Your task to perform on an android device: change your default location settings in chrome Image 0: 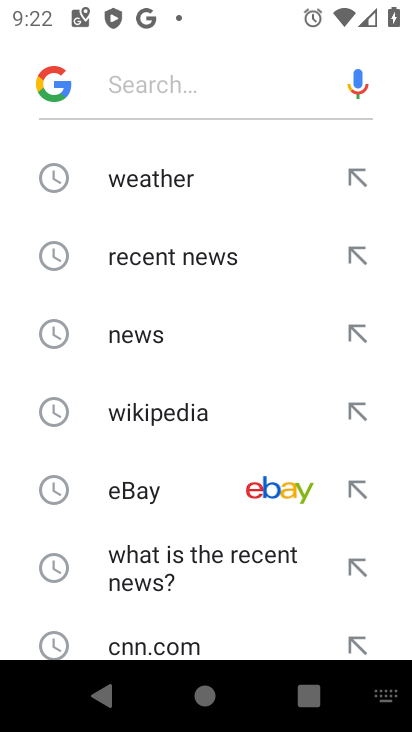
Step 0: press home button
Your task to perform on an android device: change your default location settings in chrome Image 1: 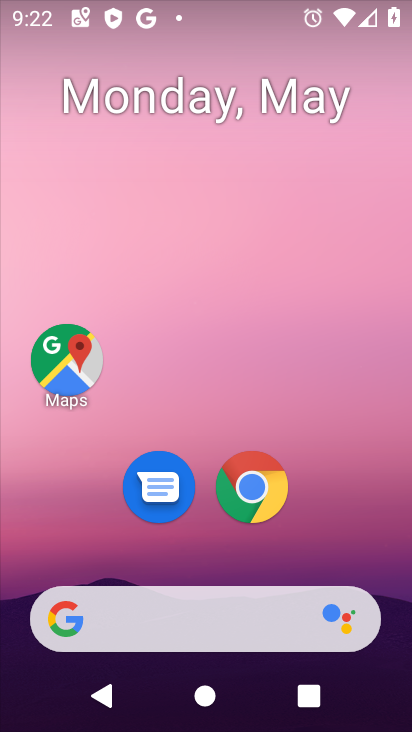
Step 1: click (250, 472)
Your task to perform on an android device: change your default location settings in chrome Image 2: 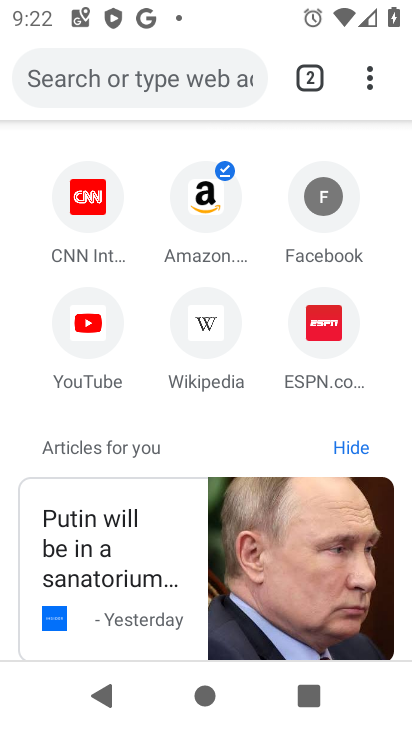
Step 2: click (360, 67)
Your task to perform on an android device: change your default location settings in chrome Image 3: 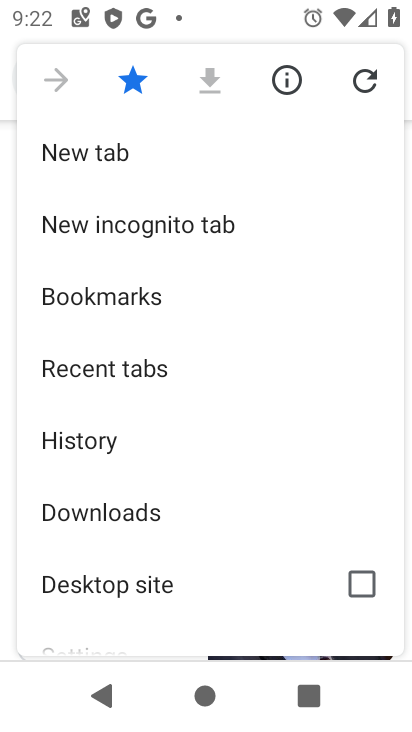
Step 3: drag from (128, 566) to (152, 186)
Your task to perform on an android device: change your default location settings in chrome Image 4: 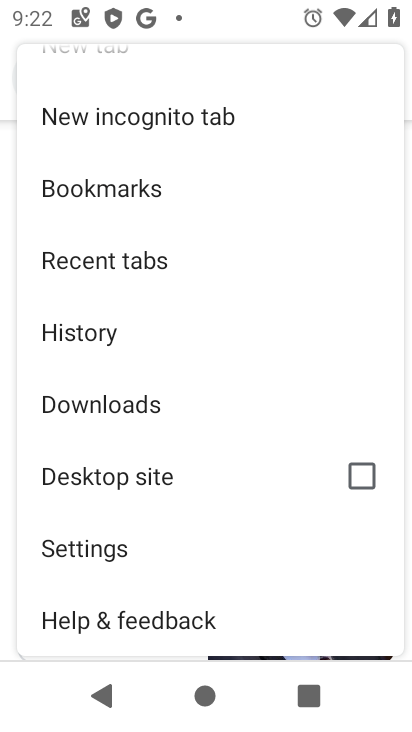
Step 4: click (126, 558)
Your task to perform on an android device: change your default location settings in chrome Image 5: 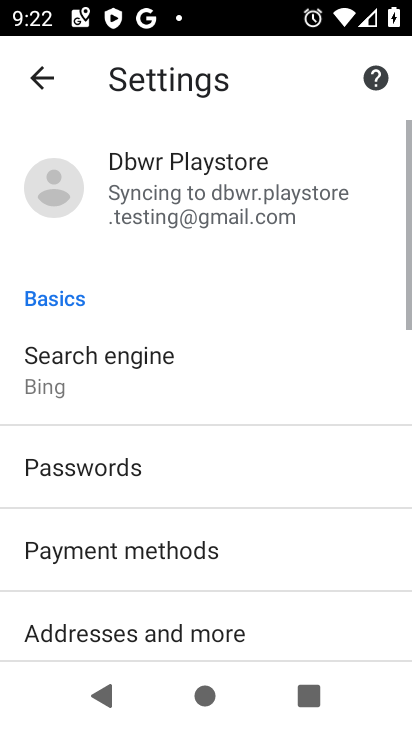
Step 5: drag from (126, 558) to (146, 205)
Your task to perform on an android device: change your default location settings in chrome Image 6: 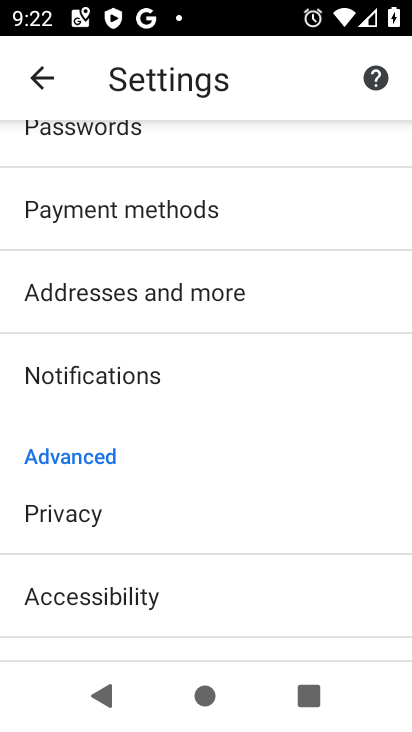
Step 6: drag from (93, 627) to (154, 240)
Your task to perform on an android device: change your default location settings in chrome Image 7: 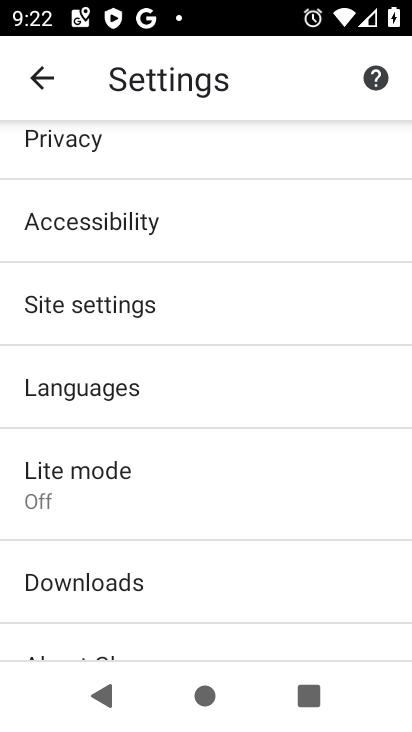
Step 7: click (157, 318)
Your task to perform on an android device: change your default location settings in chrome Image 8: 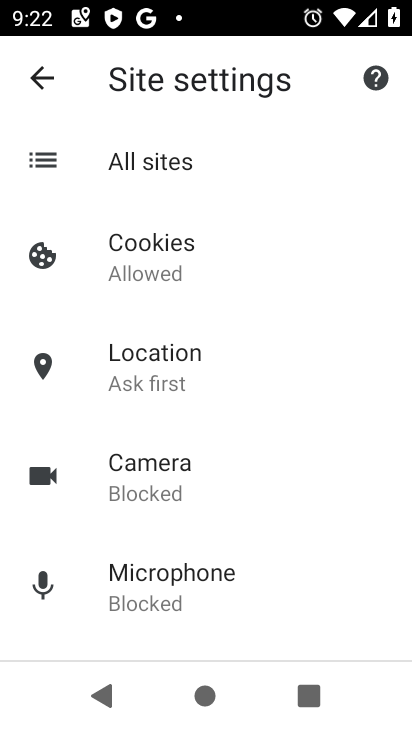
Step 8: click (260, 371)
Your task to perform on an android device: change your default location settings in chrome Image 9: 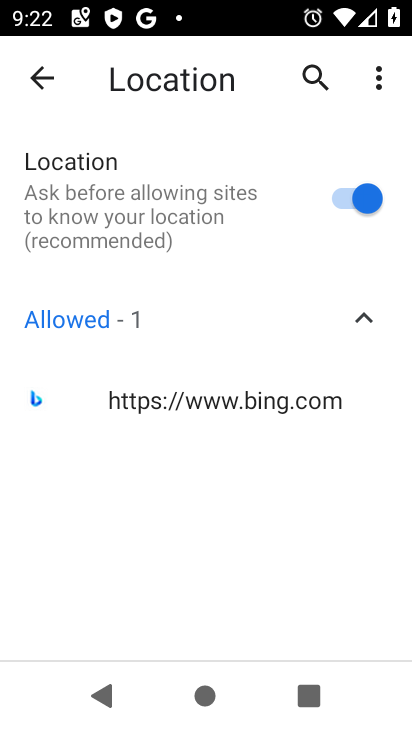
Step 9: click (351, 208)
Your task to perform on an android device: change your default location settings in chrome Image 10: 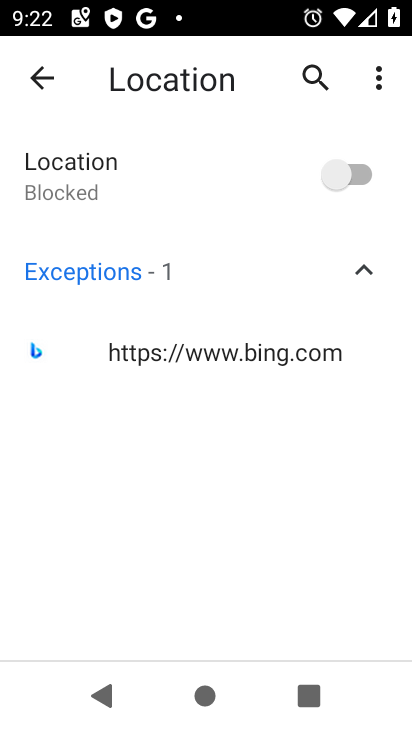
Step 10: task complete